Your task to perform on an android device: Check the weather Image 0: 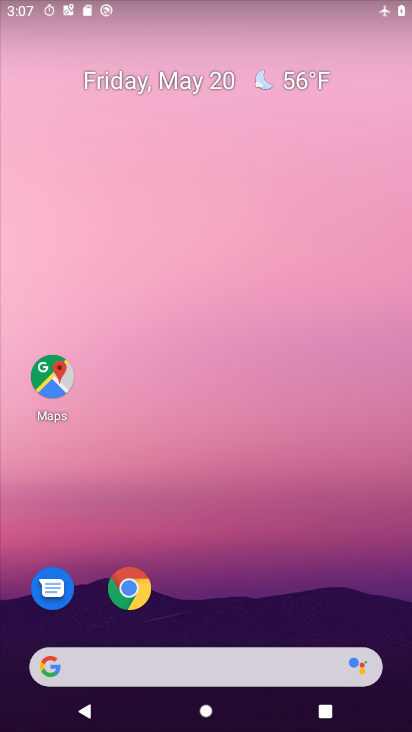
Step 0: click (214, 675)
Your task to perform on an android device: Check the weather Image 1: 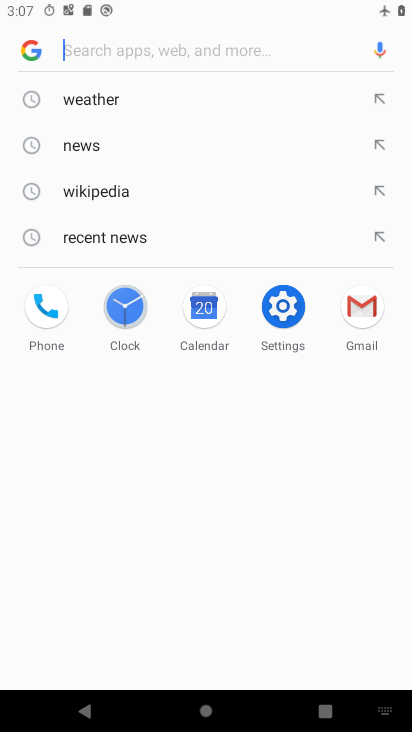
Step 1: click (94, 107)
Your task to perform on an android device: Check the weather Image 2: 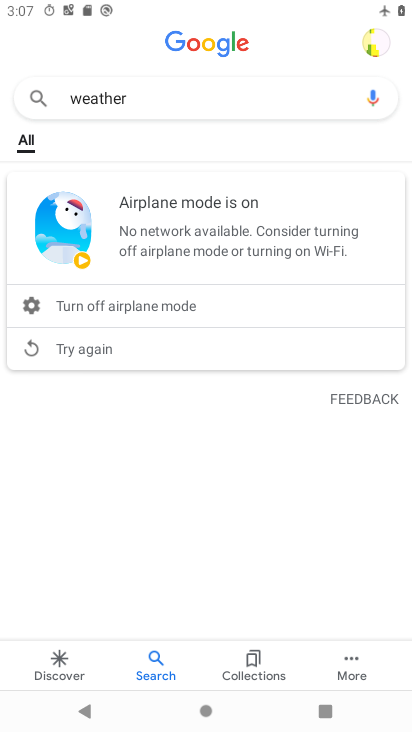
Step 2: task complete